Your task to perform on an android device: Play the last video I watched on Youtube Image 0: 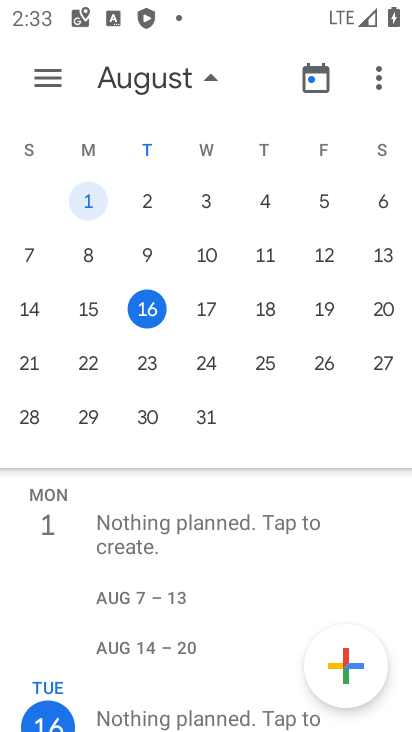
Step 0: press home button
Your task to perform on an android device: Play the last video I watched on Youtube Image 1: 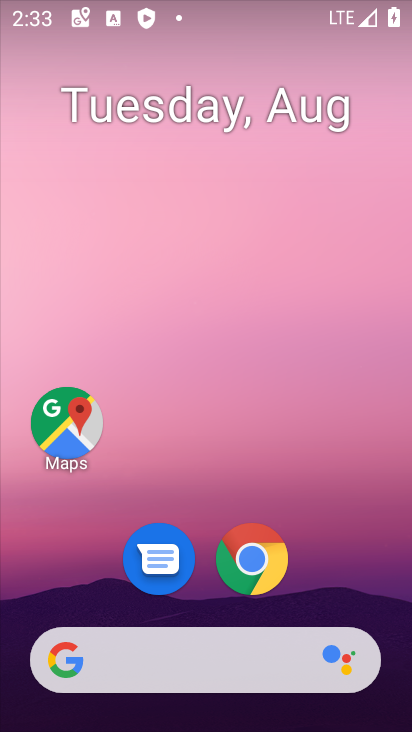
Step 1: click (376, 312)
Your task to perform on an android device: Play the last video I watched on Youtube Image 2: 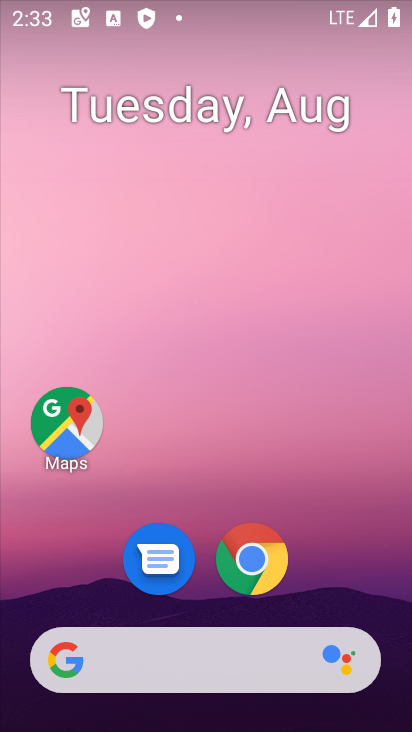
Step 2: drag from (204, 507) to (213, 120)
Your task to perform on an android device: Play the last video I watched on Youtube Image 3: 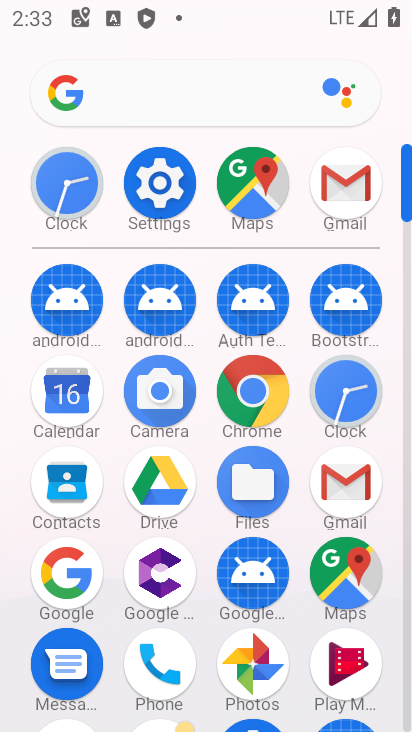
Step 3: drag from (191, 608) to (223, 207)
Your task to perform on an android device: Play the last video I watched on Youtube Image 4: 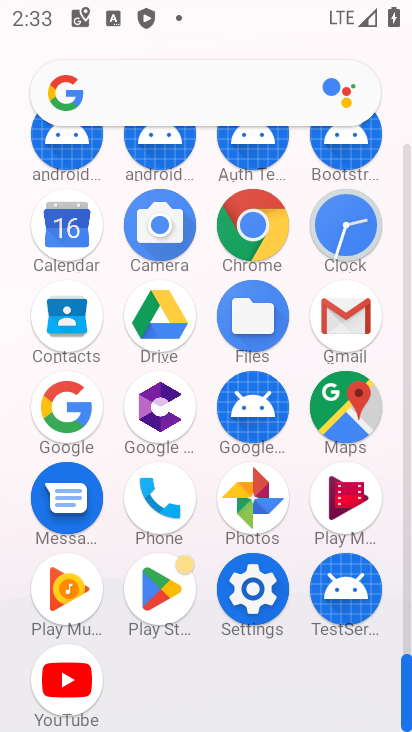
Step 4: click (59, 683)
Your task to perform on an android device: Play the last video I watched on Youtube Image 5: 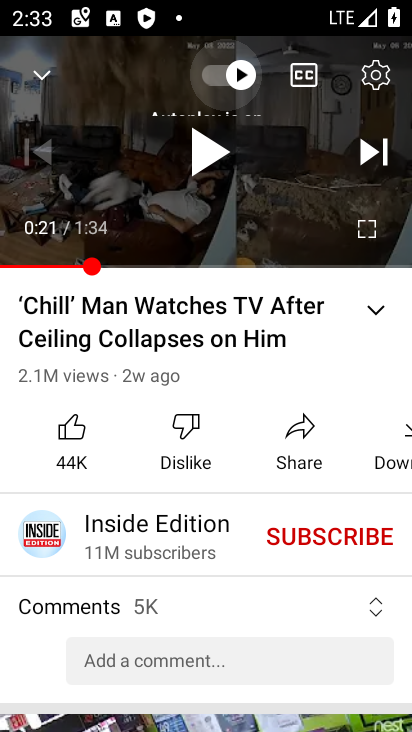
Step 5: task complete